Your task to perform on an android device: refresh tabs in the chrome app Image 0: 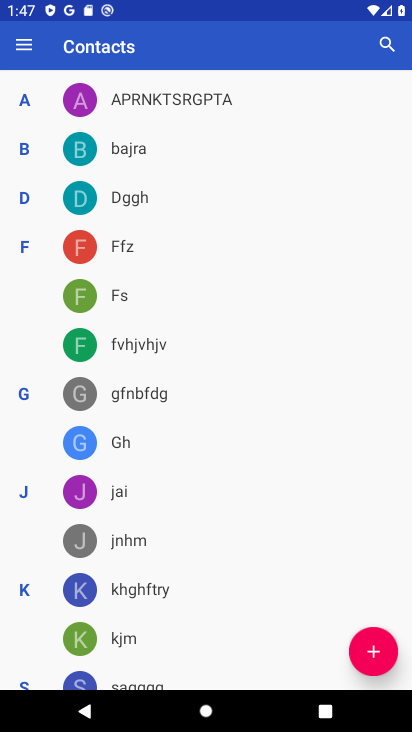
Step 0: press home button
Your task to perform on an android device: refresh tabs in the chrome app Image 1: 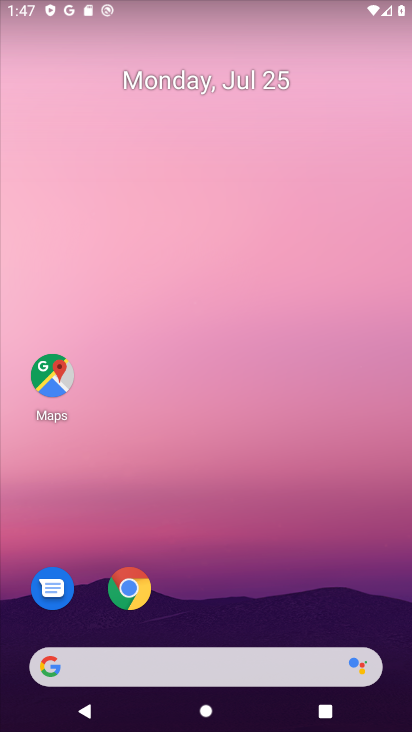
Step 1: click (127, 597)
Your task to perform on an android device: refresh tabs in the chrome app Image 2: 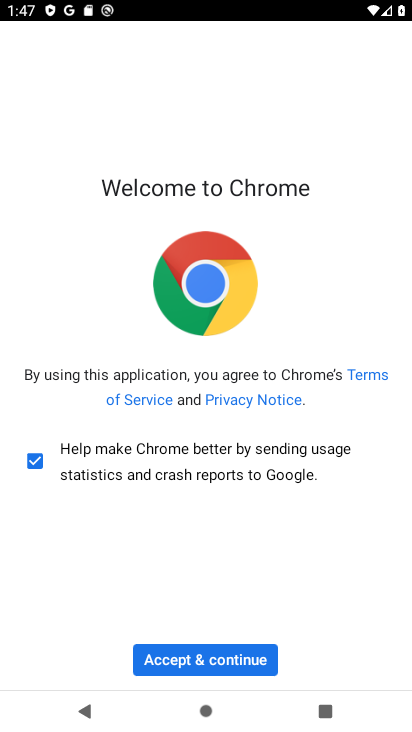
Step 2: click (231, 662)
Your task to perform on an android device: refresh tabs in the chrome app Image 3: 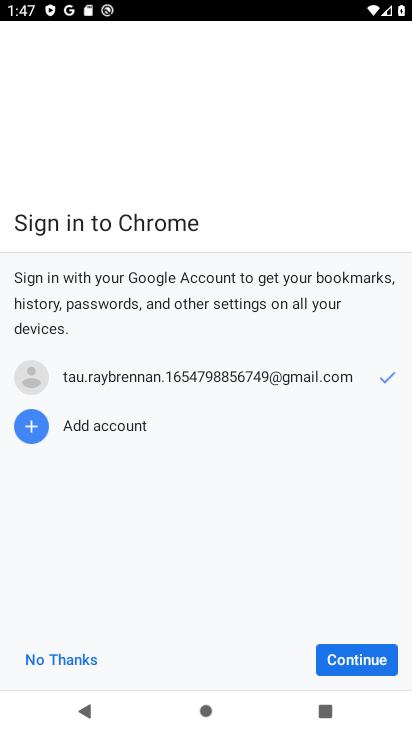
Step 3: click (341, 657)
Your task to perform on an android device: refresh tabs in the chrome app Image 4: 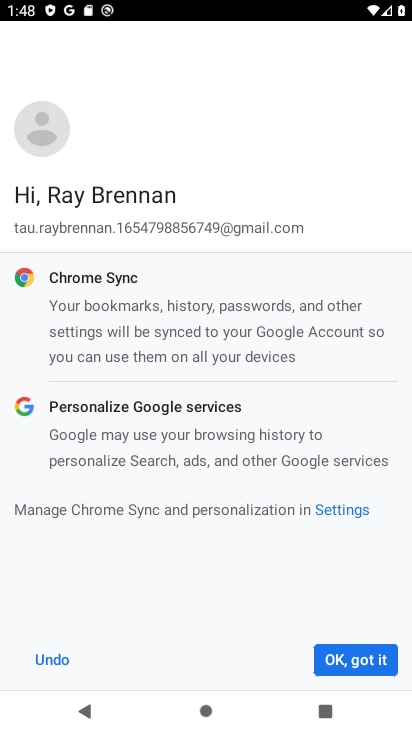
Step 4: click (343, 654)
Your task to perform on an android device: refresh tabs in the chrome app Image 5: 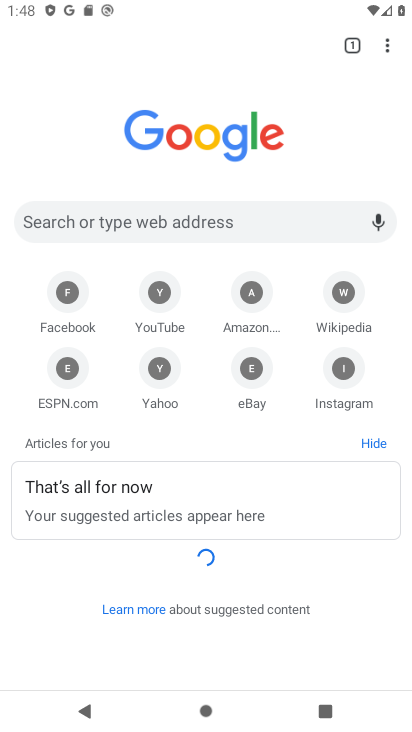
Step 5: click (386, 51)
Your task to perform on an android device: refresh tabs in the chrome app Image 6: 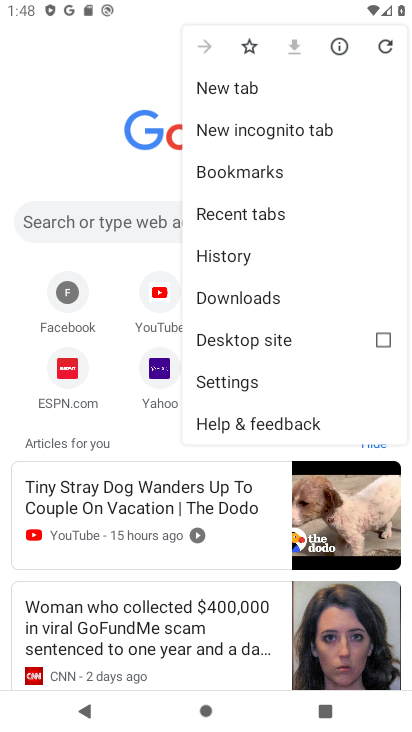
Step 6: click (383, 39)
Your task to perform on an android device: refresh tabs in the chrome app Image 7: 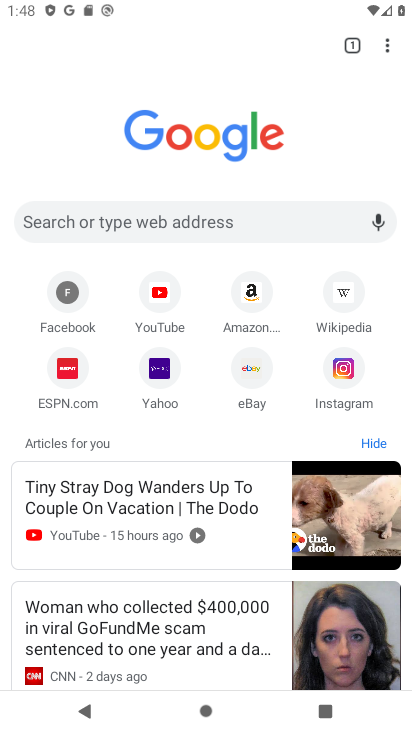
Step 7: task complete